Your task to perform on an android device: allow cookies in the chrome app Image 0: 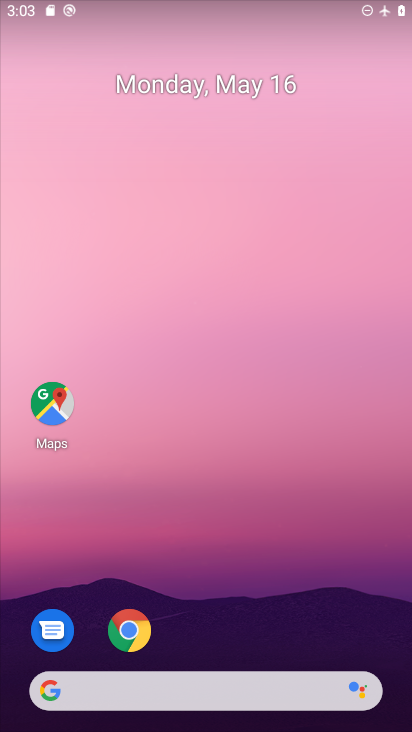
Step 0: drag from (281, 549) to (261, 86)
Your task to perform on an android device: allow cookies in the chrome app Image 1: 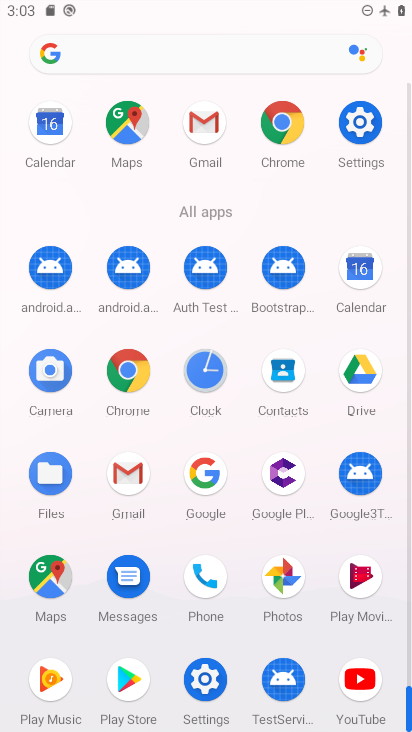
Step 1: drag from (14, 554) to (28, 256)
Your task to perform on an android device: allow cookies in the chrome app Image 2: 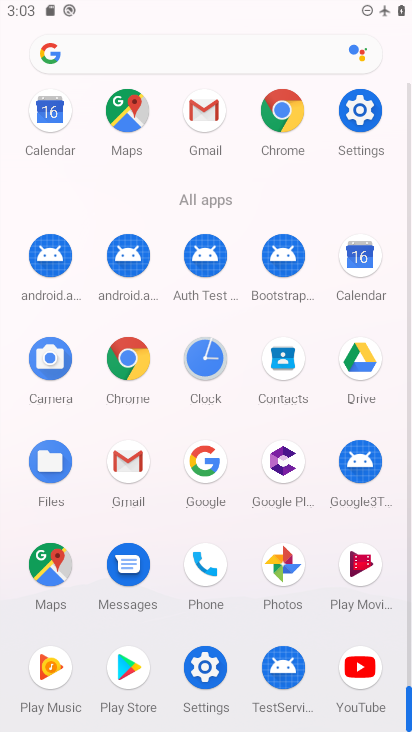
Step 2: click (285, 109)
Your task to perform on an android device: allow cookies in the chrome app Image 3: 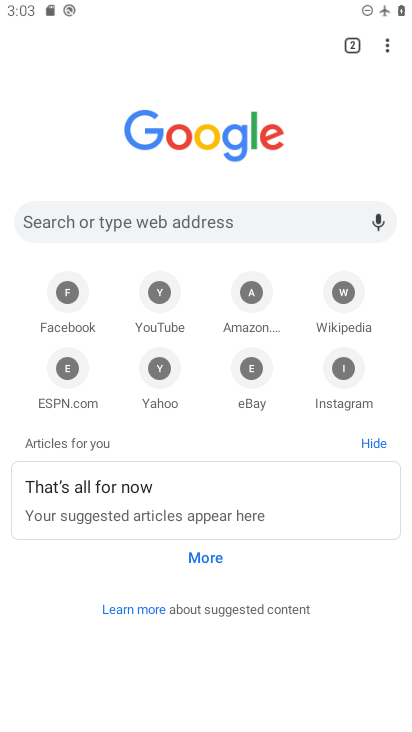
Step 3: drag from (386, 46) to (239, 377)
Your task to perform on an android device: allow cookies in the chrome app Image 4: 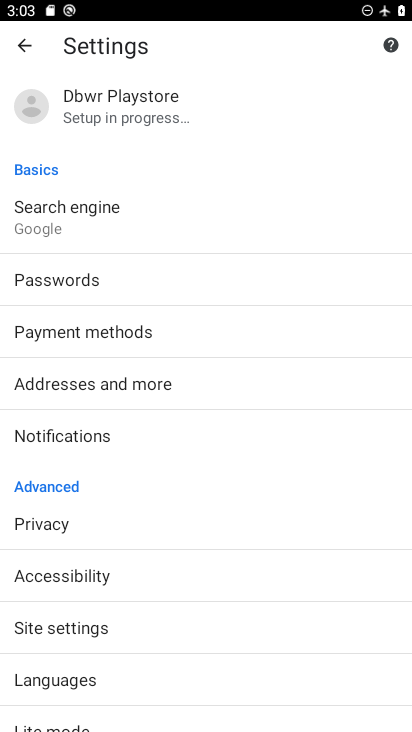
Step 4: click (118, 619)
Your task to perform on an android device: allow cookies in the chrome app Image 5: 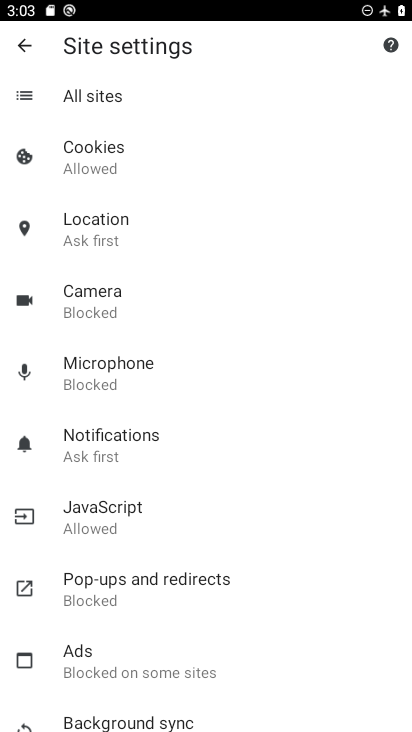
Step 5: click (141, 144)
Your task to perform on an android device: allow cookies in the chrome app Image 6: 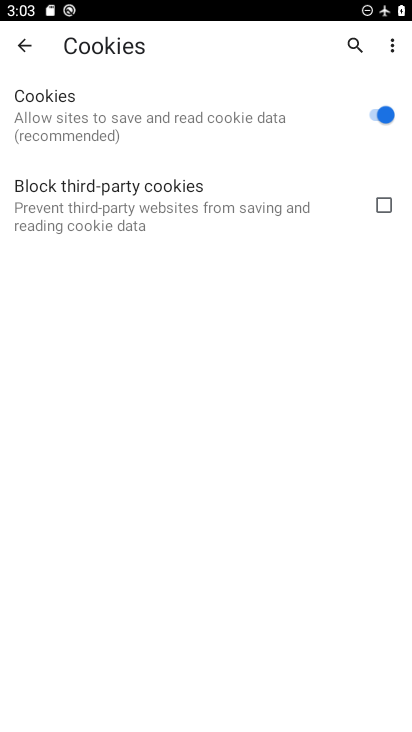
Step 6: task complete